Your task to perform on an android device: toggle data saver in the chrome app Image 0: 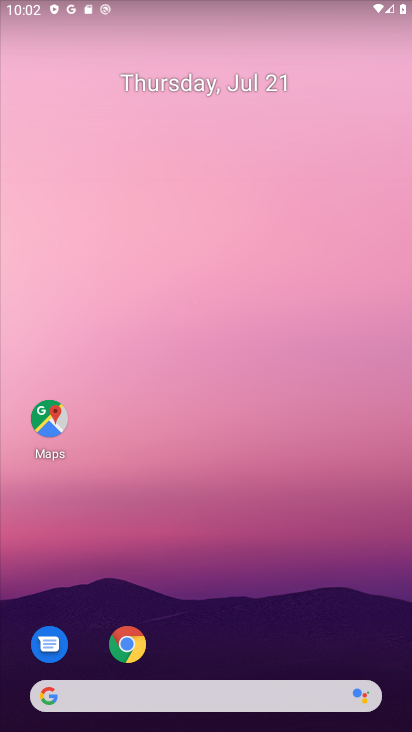
Step 0: click (123, 640)
Your task to perform on an android device: toggle data saver in the chrome app Image 1: 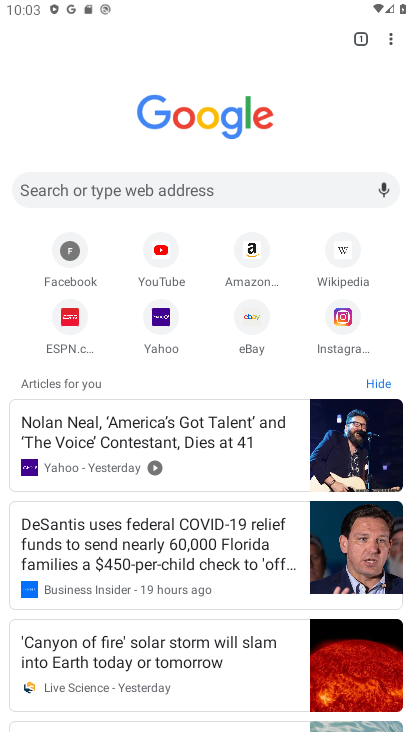
Step 1: click (383, 38)
Your task to perform on an android device: toggle data saver in the chrome app Image 2: 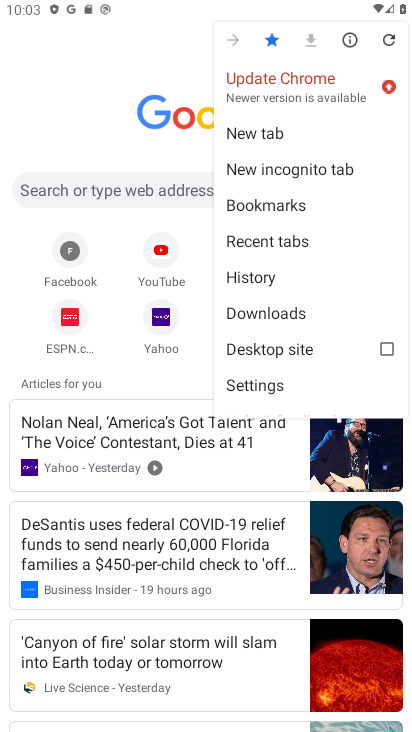
Step 2: click (284, 385)
Your task to perform on an android device: toggle data saver in the chrome app Image 3: 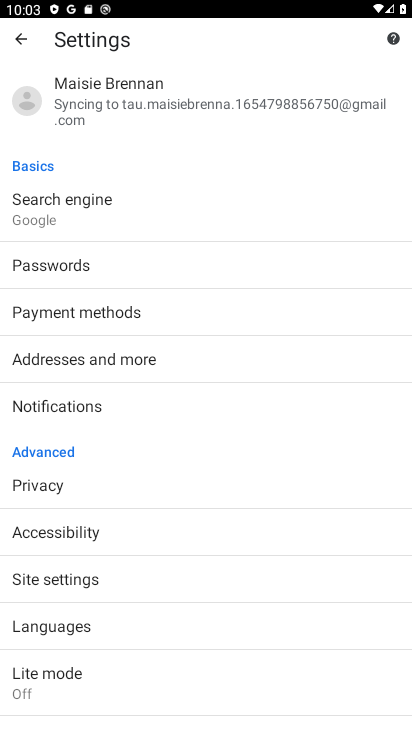
Step 3: click (119, 685)
Your task to perform on an android device: toggle data saver in the chrome app Image 4: 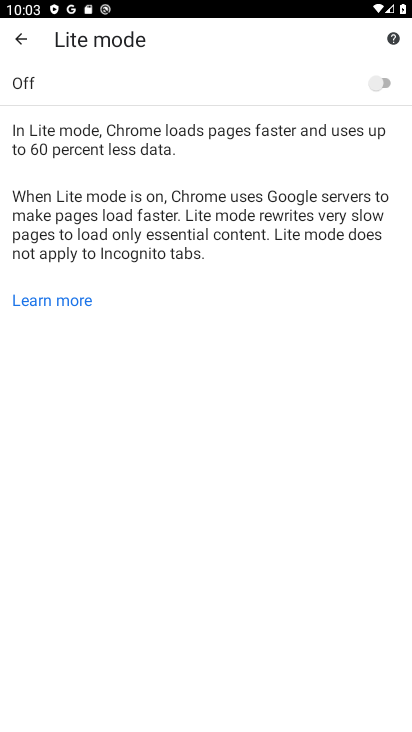
Step 4: click (380, 85)
Your task to perform on an android device: toggle data saver in the chrome app Image 5: 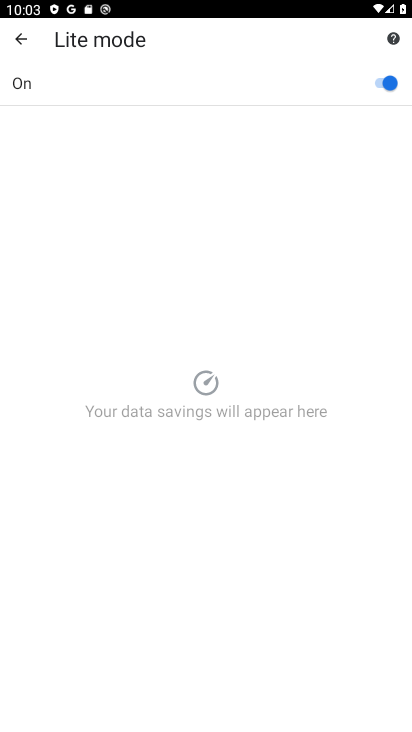
Step 5: task complete